Your task to perform on an android device: Open Android settings Image 0: 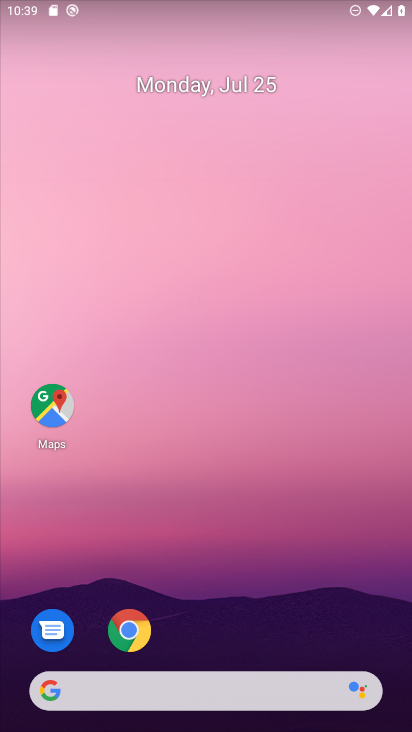
Step 0: drag from (340, 576) to (266, 61)
Your task to perform on an android device: Open Android settings Image 1: 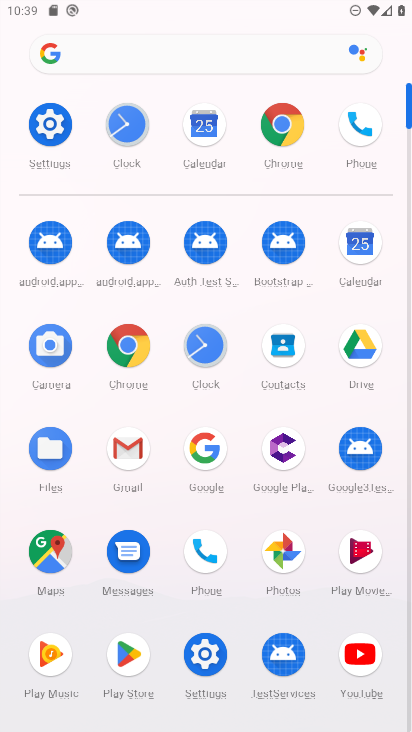
Step 1: click (38, 110)
Your task to perform on an android device: Open Android settings Image 2: 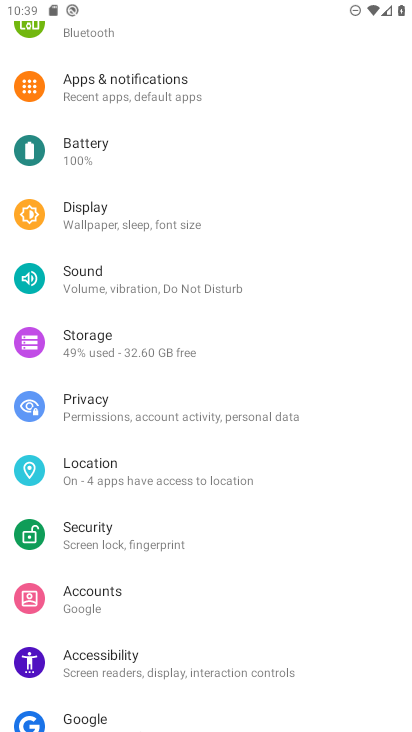
Step 2: task complete